Your task to perform on an android device: Open Maps and search for coffee Image 0: 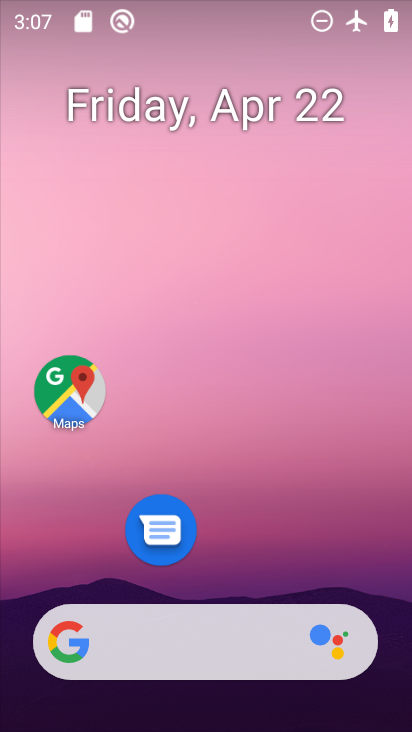
Step 0: drag from (241, 533) to (153, 4)
Your task to perform on an android device: Open Maps and search for coffee Image 1: 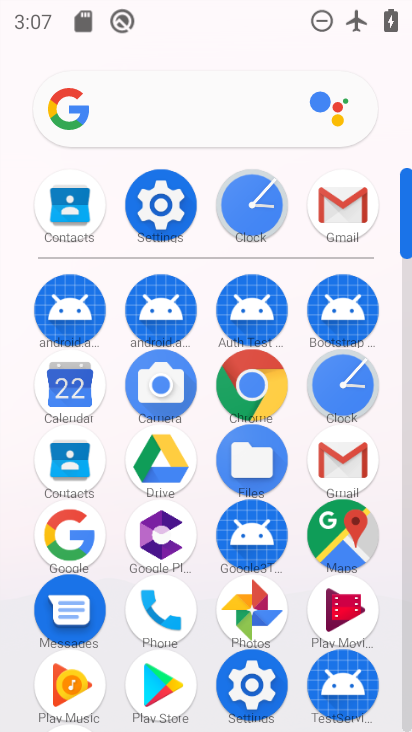
Step 1: click (334, 530)
Your task to perform on an android device: Open Maps and search for coffee Image 2: 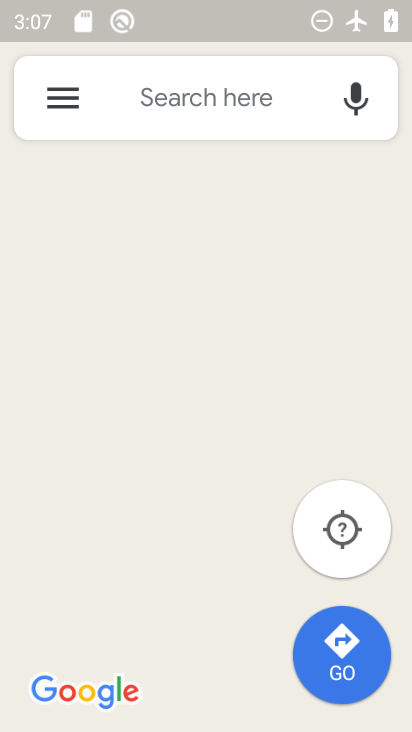
Step 2: click (153, 106)
Your task to perform on an android device: Open Maps and search for coffee Image 3: 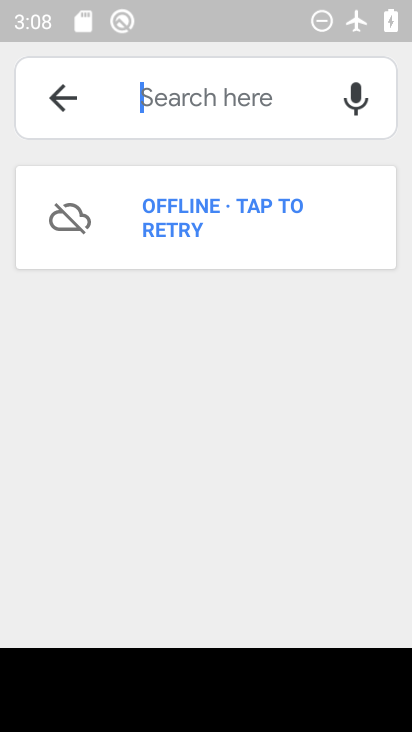
Step 3: type " coffee"
Your task to perform on an android device: Open Maps and search for coffee Image 4: 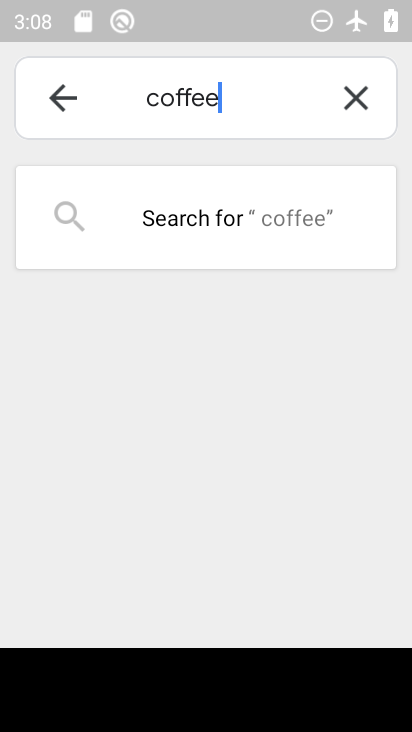
Step 4: task complete